Your task to perform on an android device: change timer sound Image 0: 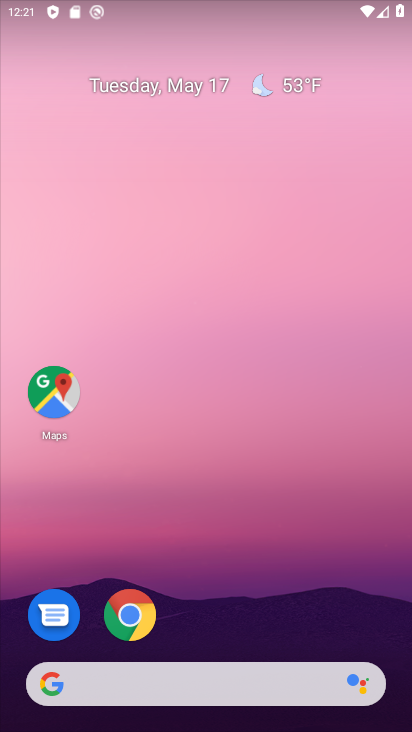
Step 0: drag from (240, 622) to (262, 159)
Your task to perform on an android device: change timer sound Image 1: 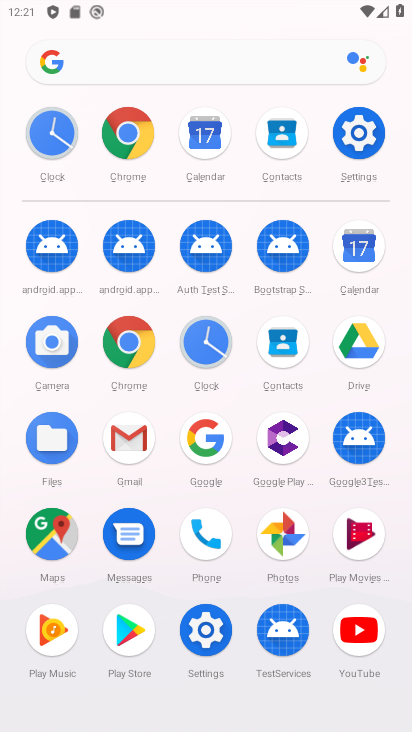
Step 1: click (35, 130)
Your task to perform on an android device: change timer sound Image 2: 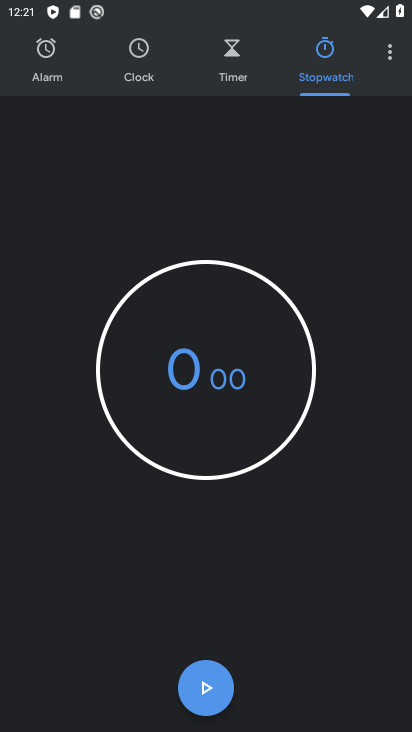
Step 2: click (394, 71)
Your task to perform on an android device: change timer sound Image 3: 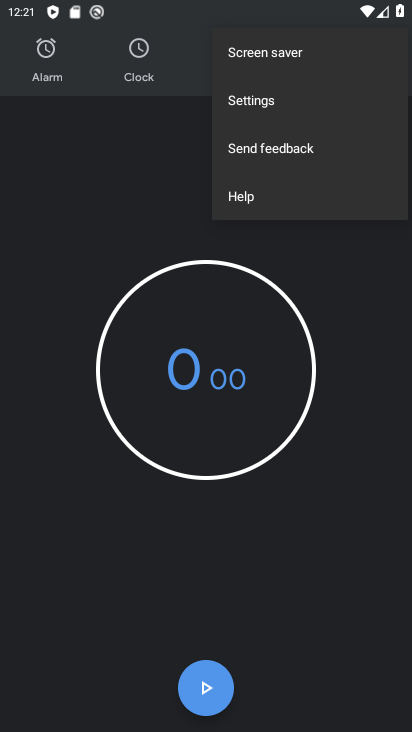
Step 3: click (287, 118)
Your task to perform on an android device: change timer sound Image 4: 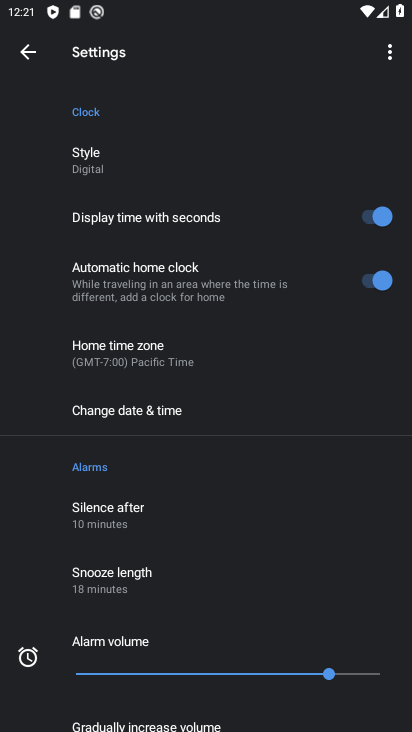
Step 4: drag from (254, 434) to (293, 147)
Your task to perform on an android device: change timer sound Image 5: 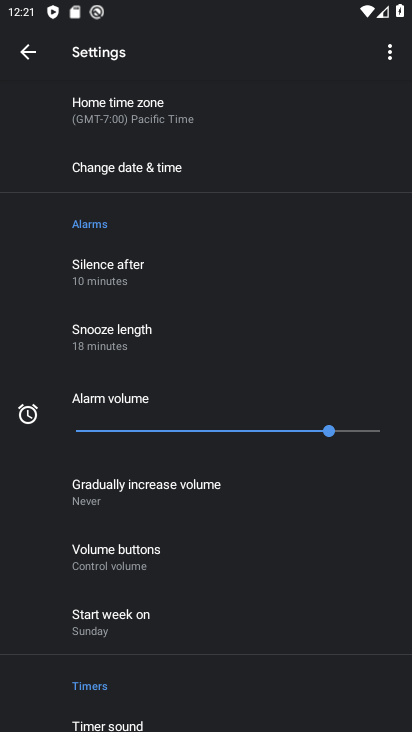
Step 5: drag from (241, 598) to (269, 165)
Your task to perform on an android device: change timer sound Image 6: 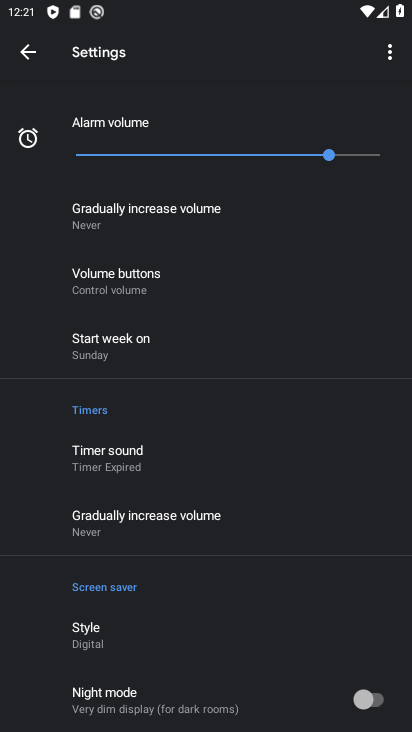
Step 6: click (208, 444)
Your task to perform on an android device: change timer sound Image 7: 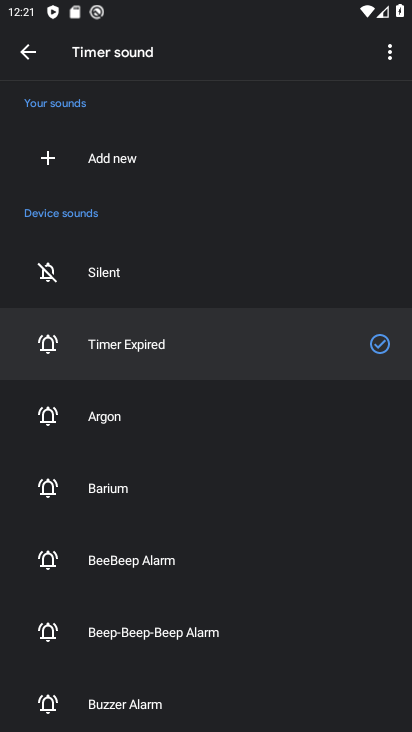
Step 7: click (177, 453)
Your task to perform on an android device: change timer sound Image 8: 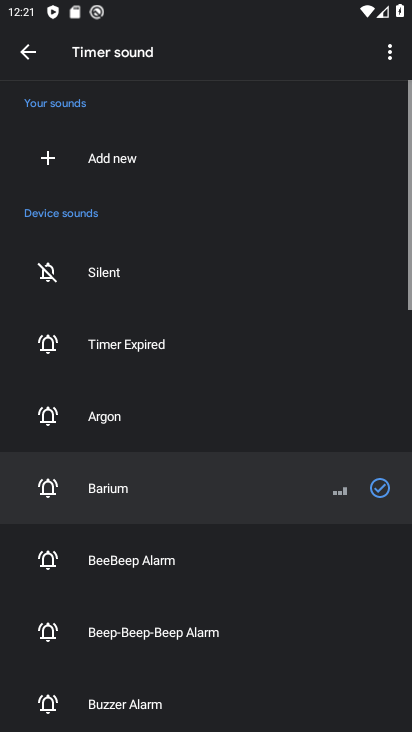
Step 8: task complete